Your task to perform on an android device: install app "Booking.com: Hotels and more" Image 0: 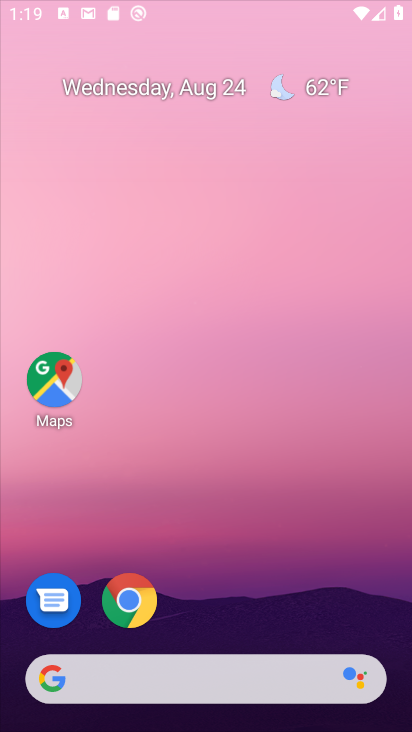
Step 0: click (322, 65)
Your task to perform on an android device: install app "Booking.com: Hotels and more" Image 1: 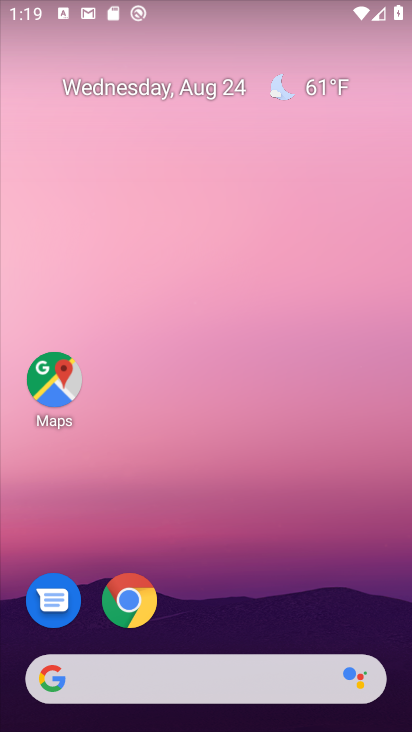
Step 1: drag from (275, 608) to (282, 67)
Your task to perform on an android device: install app "Booking.com: Hotels and more" Image 2: 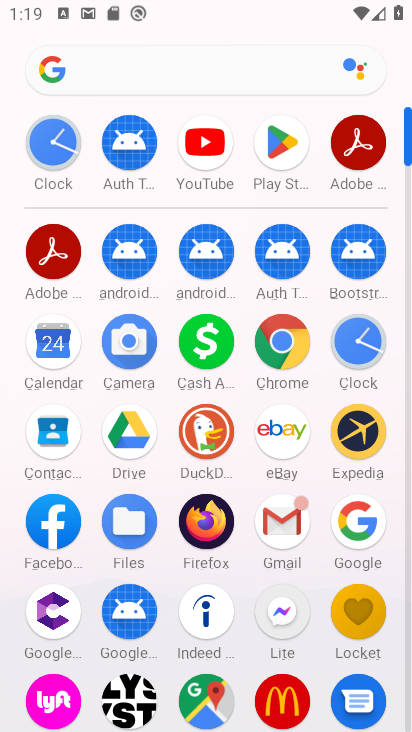
Step 2: click (297, 164)
Your task to perform on an android device: install app "Booking.com: Hotels and more" Image 3: 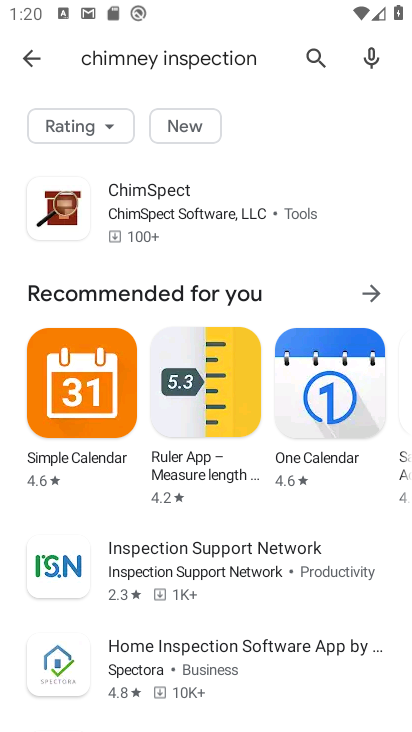
Step 3: click (318, 70)
Your task to perform on an android device: install app "Booking.com: Hotels and more" Image 4: 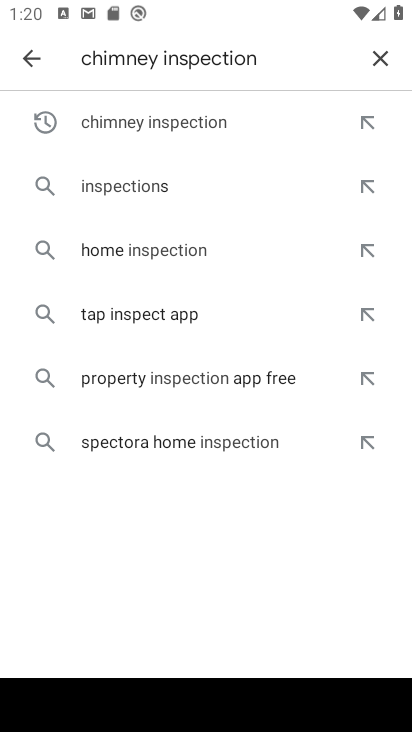
Step 4: click (365, 53)
Your task to perform on an android device: install app "Booking.com: Hotels and more" Image 5: 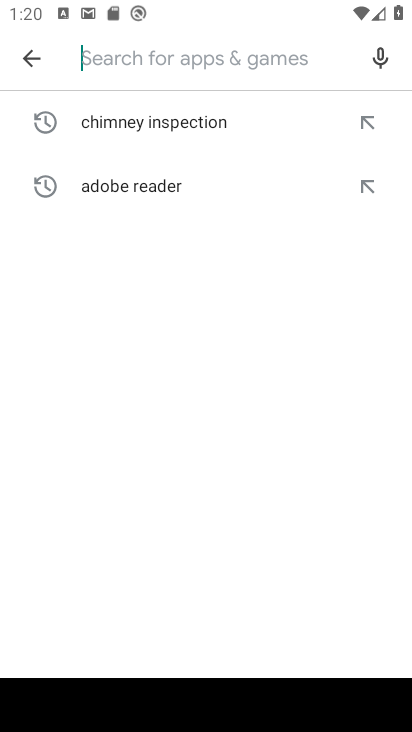
Step 5: type "booking"
Your task to perform on an android device: install app "Booking.com: Hotels and more" Image 6: 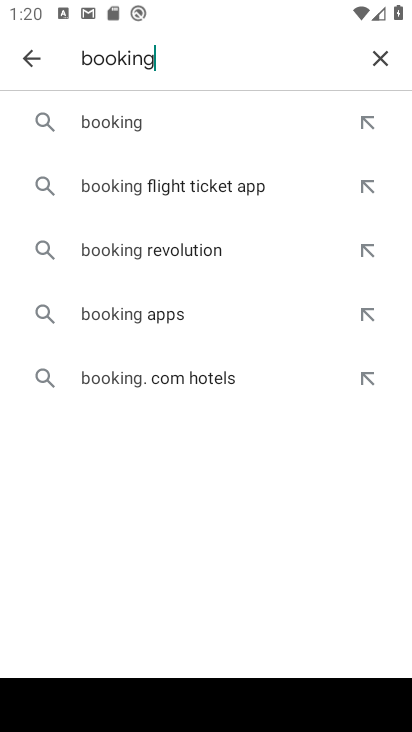
Step 6: click (157, 131)
Your task to perform on an android device: install app "Booking.com: Hotels and more" Image 7: 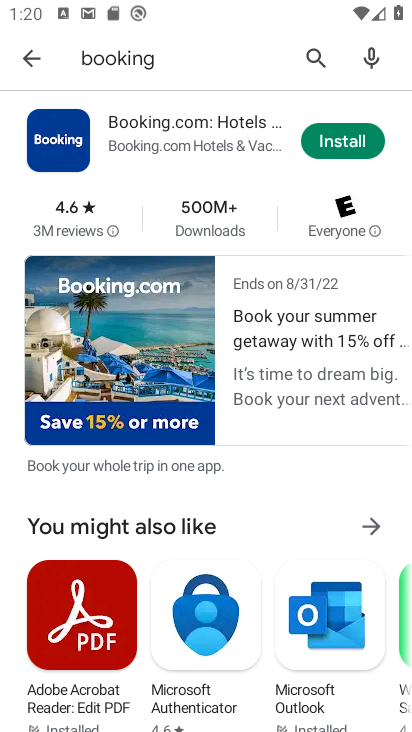
Step 7: click (349, 132)
Your task to perform on an android device: install app "Booking.com: Hotels and more" Image 8: 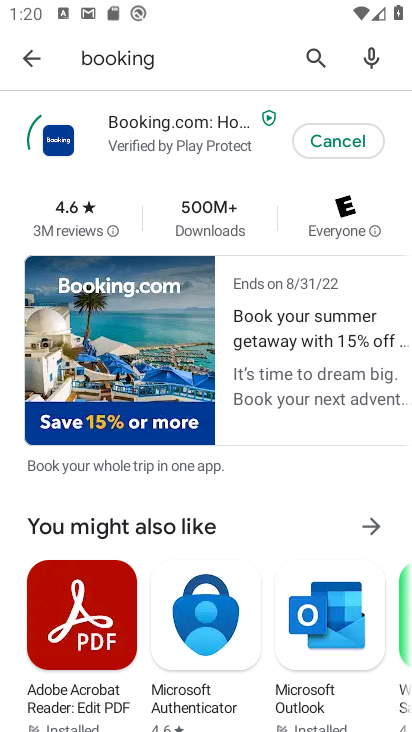
Step 8: task complete